Your task to perform on an android device: Open the phone app and click the voicemail tab. Image 0: 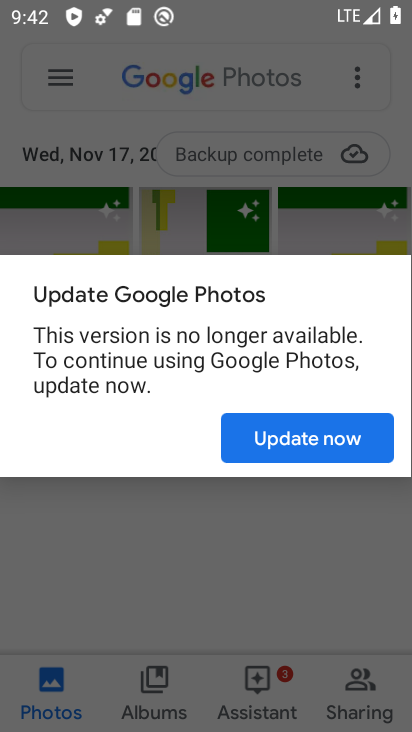
Step 0: press home button
Your task to perform on an android device: Open the phone app and click the voicemail tab. Image 1: 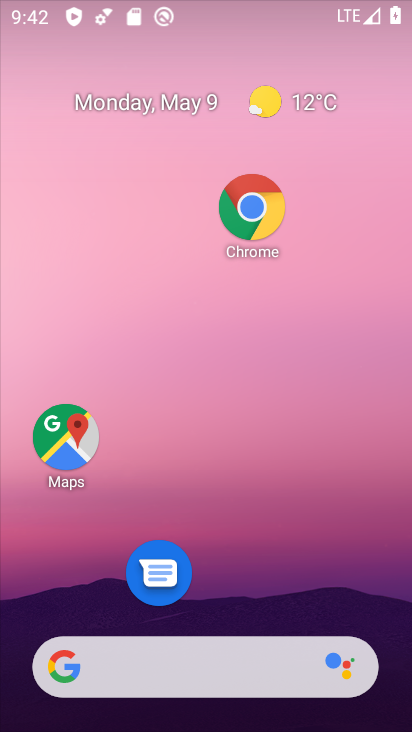
Step 1: drag from (227, 640) to (227, 119)
Your task to perform on an android device: Open the phone app and click the voicemail tab. Image 2: 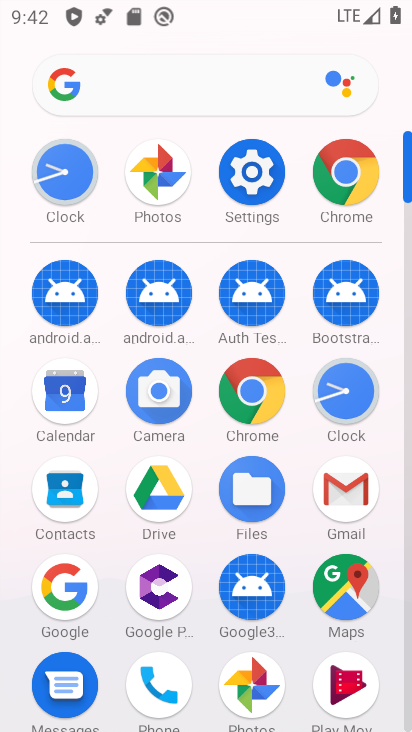
Step 2: drag from (286, 571) to (291, 258)
Your task to perform on an android device: Open the phone app and click the voicemail tab. Image 3: 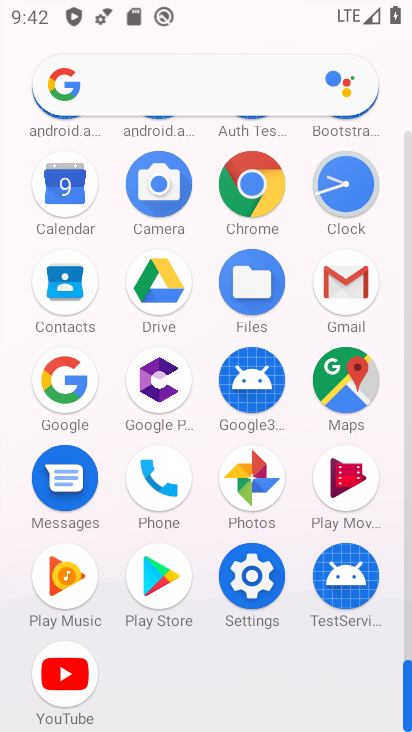
Step 3: click (149, 500)
Your task to perform on an android device: Open the phone app and click the voicemail tab. Image 4: 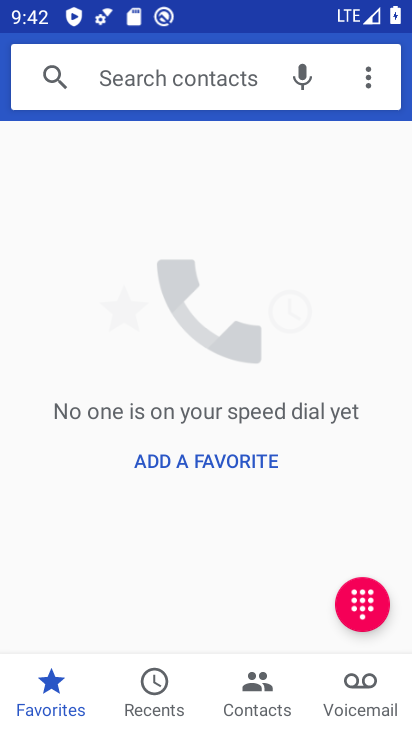
Step 4: click (399, 701)
Your task to perform on an android device: Open the phone app and click the voicemail tab. Image 5: 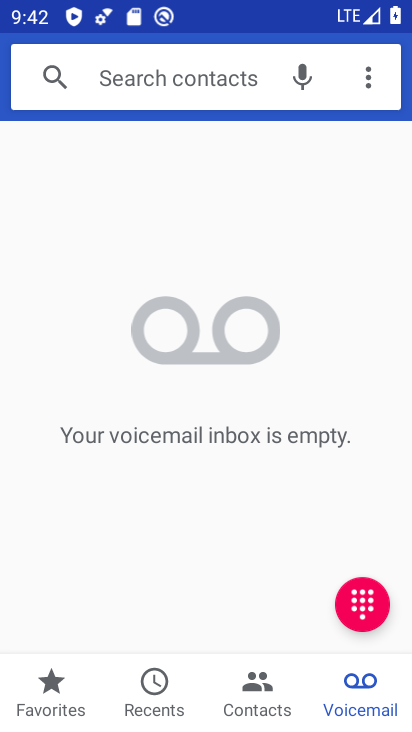
Step 5: task complete